Your task to perform on an android device: Open calendar and show me the fourth week of next month Image 0: 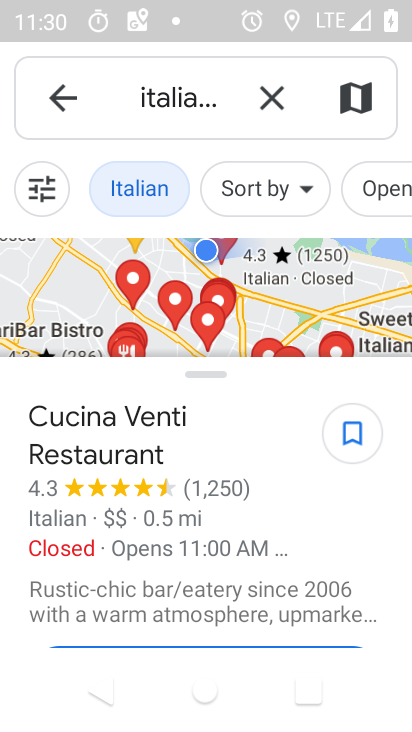
Step 0: press home button
Your task to perform on an android device: Open calendar and show me the fourth week of next month Image 1: 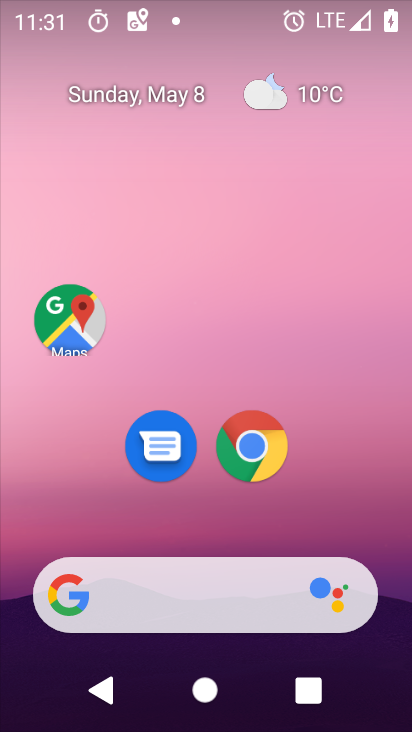
Step 1: drag from (393, 559) to (406, 4)
Your task to perform on an android device: Open calendar and show me the fourth week of next month Image 2: 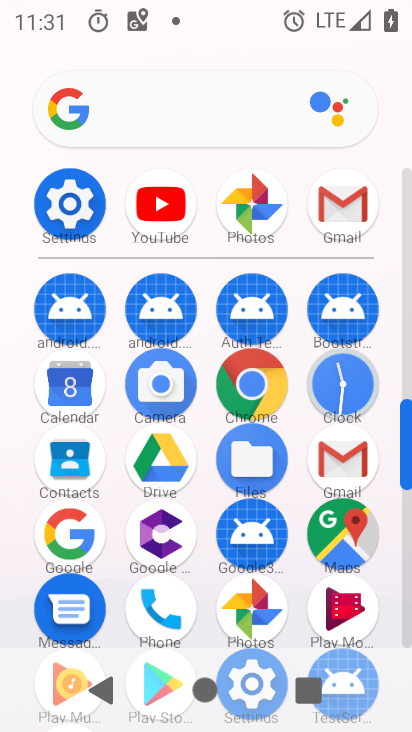
Step 2: click (74, 386)
Your task to perform on an android device: Open calendar and show me the fourth week of next month Image 3: 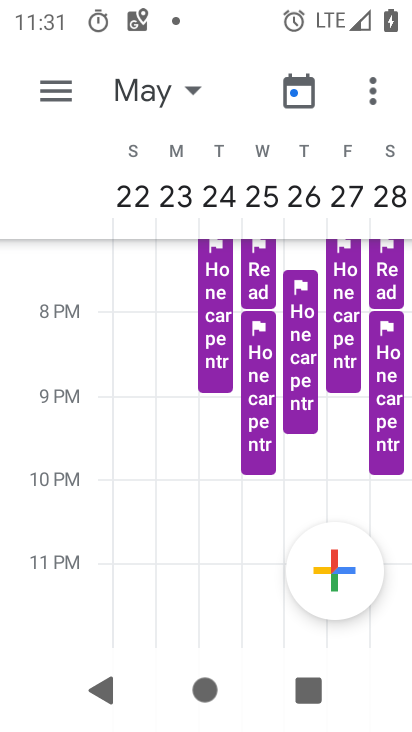
Step 3: task complete